Your task to perform on an android device: What's the weather? Image 0: 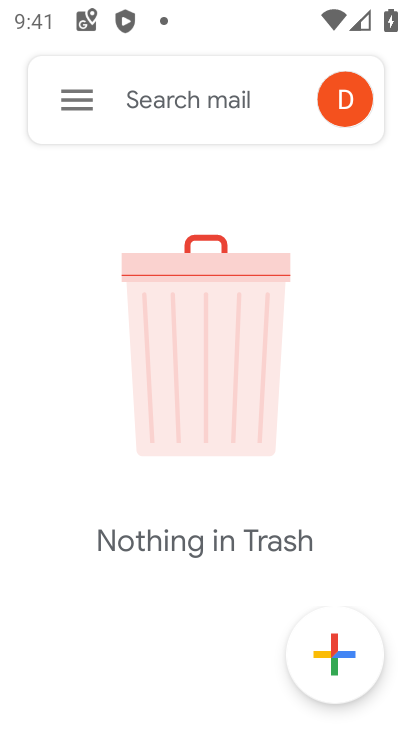
Step 0: press home button
Your task to perform on an android device: What's the weather? Image 1: 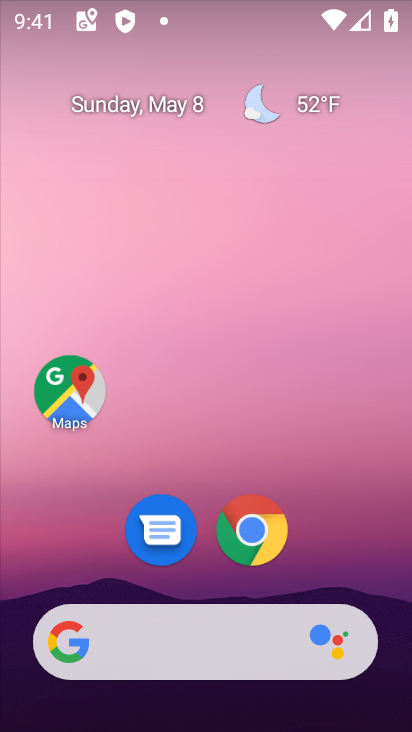
Step 1: drag from (362, 536) to (341, 129)
Your task to perform on an android device: What's the weather? Image 2: 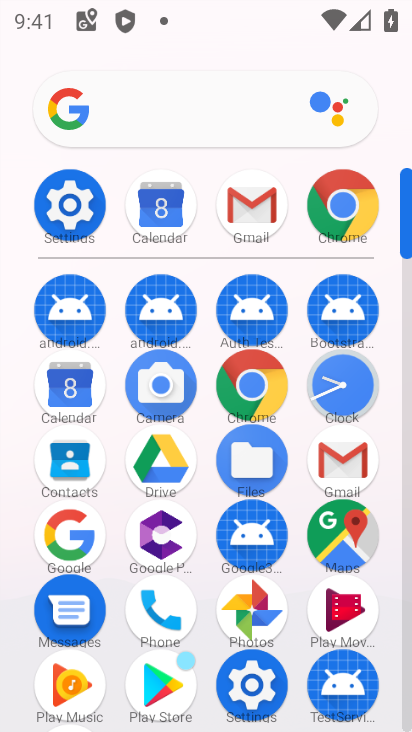
Step 2: click (242, 391)
Your task to perform on an android device: What's the weather? Image 3: 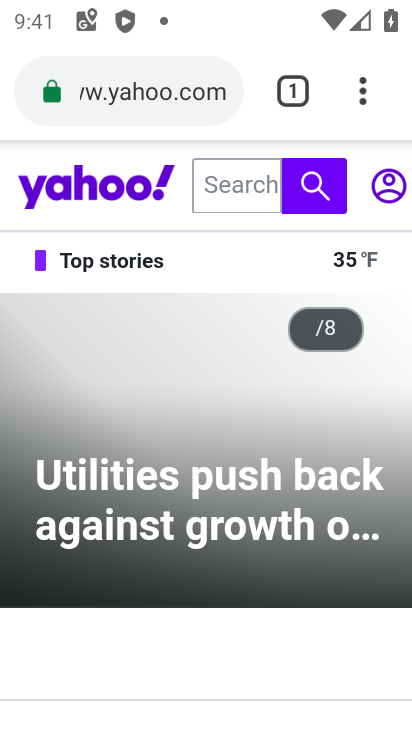
Step 3: click (140, 97)
Your task to perform on an android device: What's the weather? Image 4: 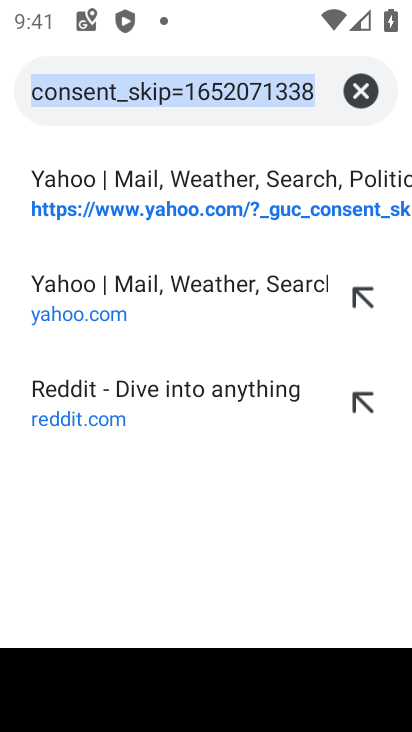
Step 4: click (359, 103)
Your task to perform on an android device: What's the weather? Image 5: 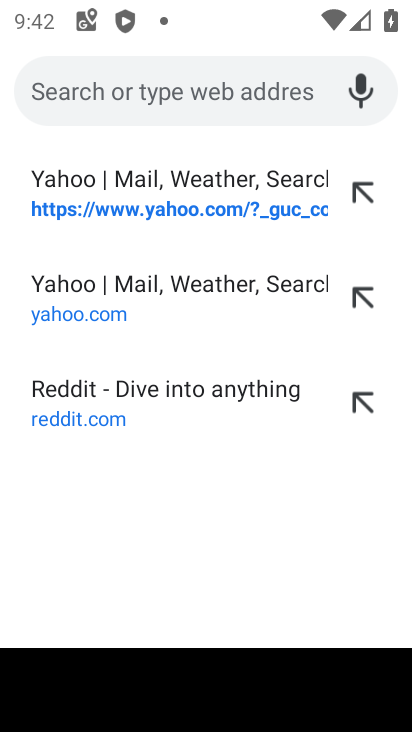
Step 5: type "what's the weather "
Your task to perform on an android device: What's the weather? Image 6: 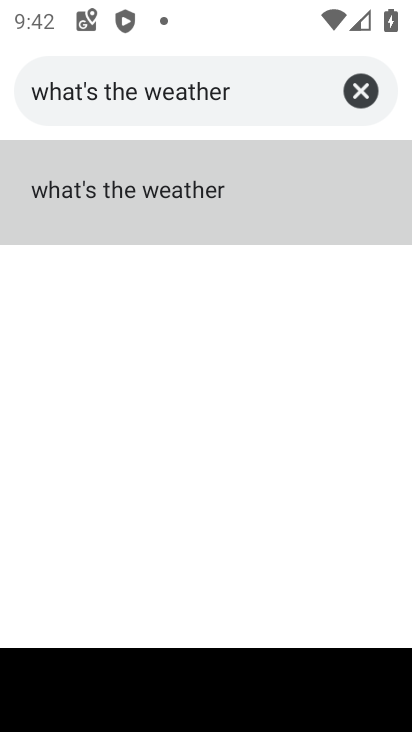
Step 6: click (188, 184)
Your task to perform on an android device: What's the weather? Image 7: 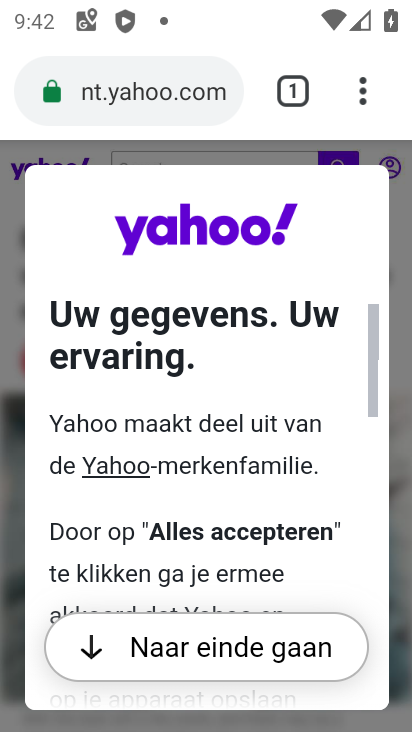
Step 7: task complete